Your task to perform on an android device: add a label to a message in the gmail app Image 0: 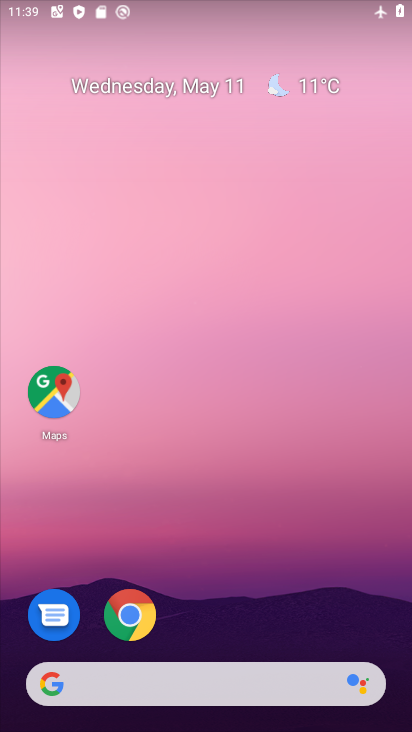
Step 0: drag from (273, 567) to (272, 133)
Your task to perform on an android device: add a label to a message in the gmail app Image 1: 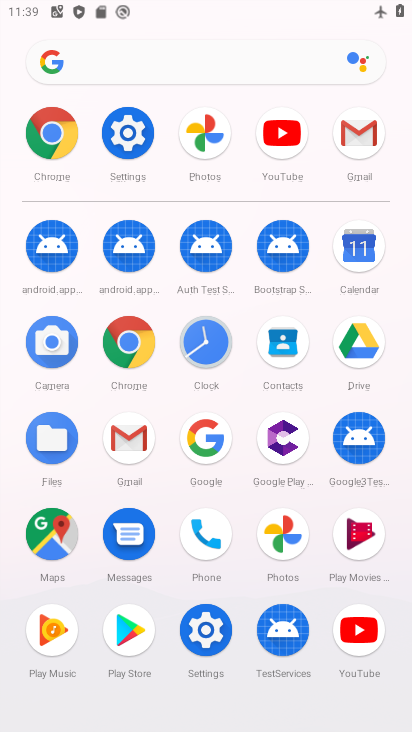
Step 1: click (359, 142)
Your task to perform on an android device: add a label to a message in the gmail app Image 2: 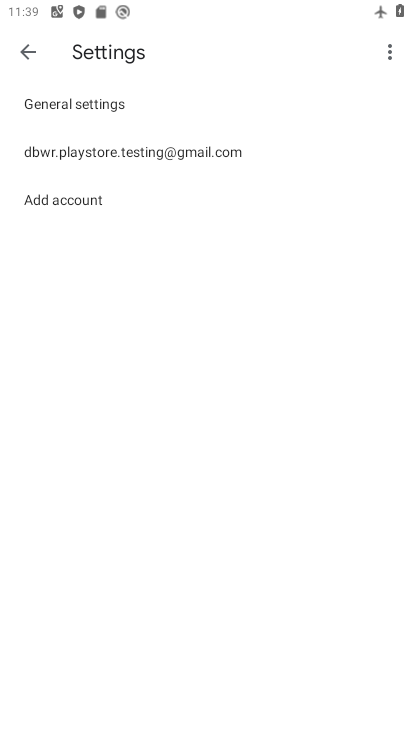
Step 2: click (0, 192)
Your task to perform on an android device: add a label to a message in the gmail app Image 3: 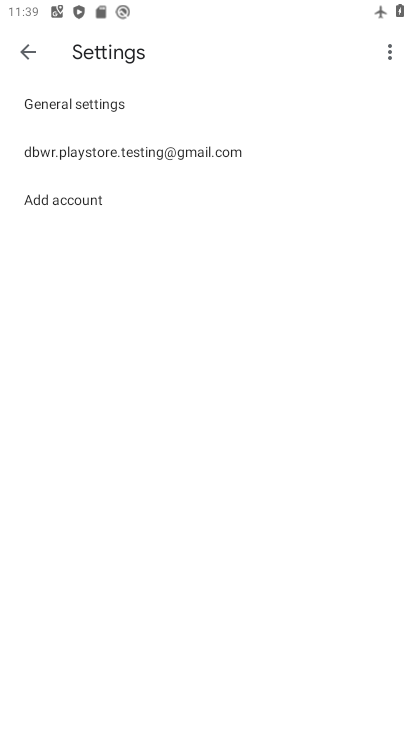
Step 3: click (36, 144)
Your task to perform on an android device: add a label to a message in the gmail app Image 4: 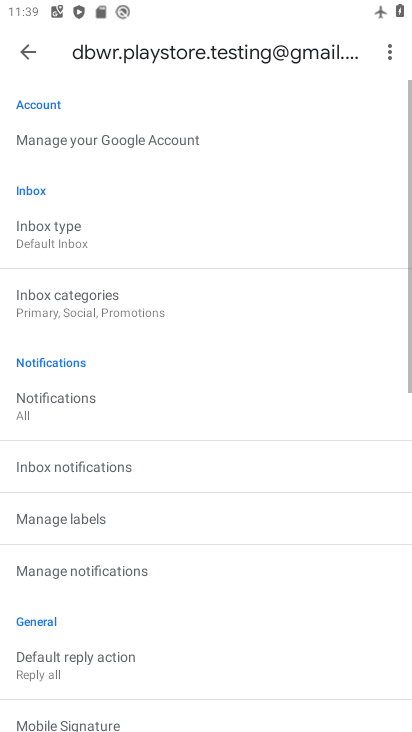
Step 4: click (23, 63)
Your task to perform on an android device: add a label to a message in the gmail app Image 5: 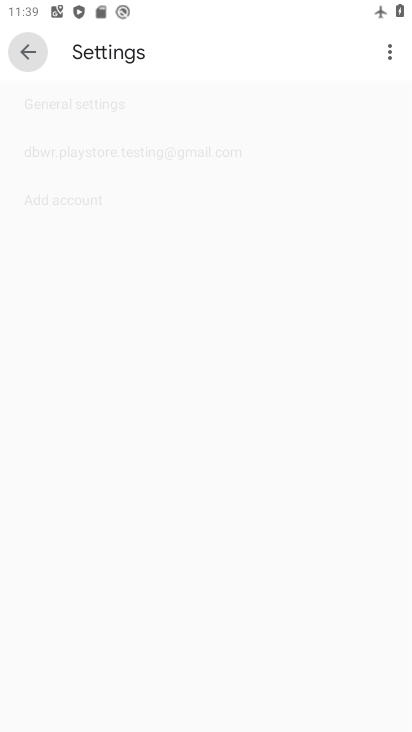
Step 5: click (23, 63)
Your task to perform on an android device: add a label to a message in the gmail app Image 6: 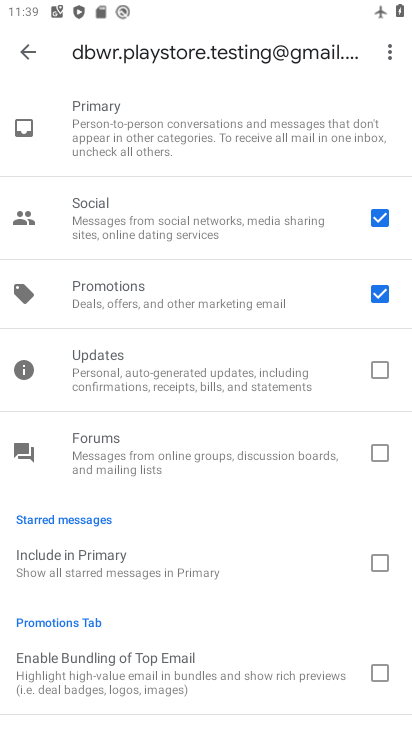
Step 6: click (26, 63)
Your task to perform on an android device: add a label to a message in the gmail app Image 7: 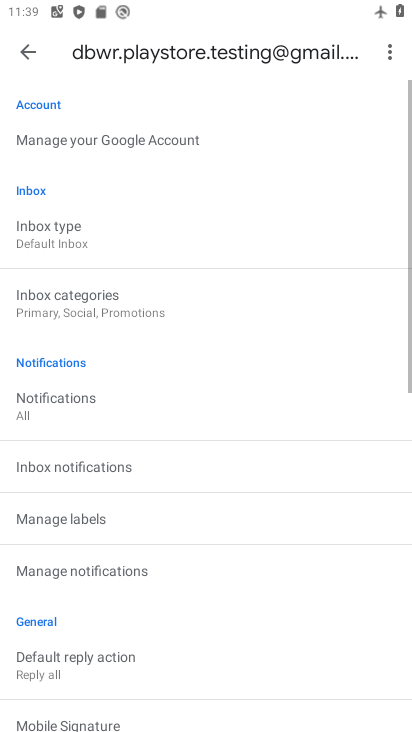
Step 7: click (26, 63)
Your task to perform on an android device: add a label to a message in the gmail app Image 8: 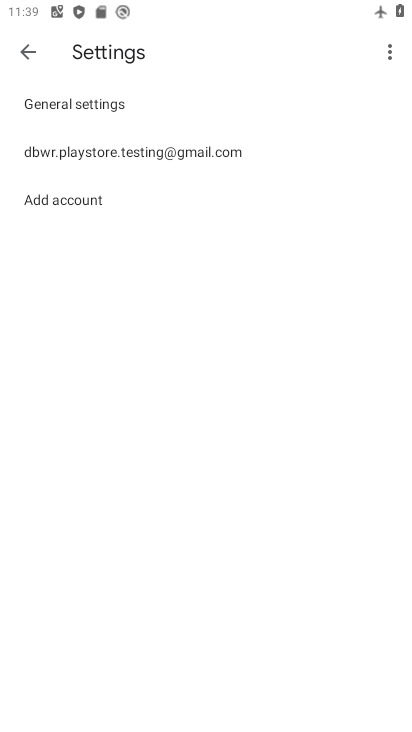
Step 8: click (26, 63)
Your task to perform on an android device: add a label to a message in the gmail app Image 9: 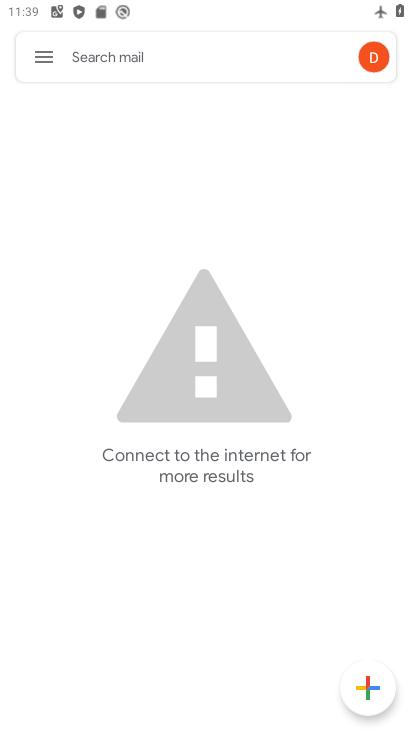
Step 9: task complete